Your task to perform on an android device: delete location history Image 0: 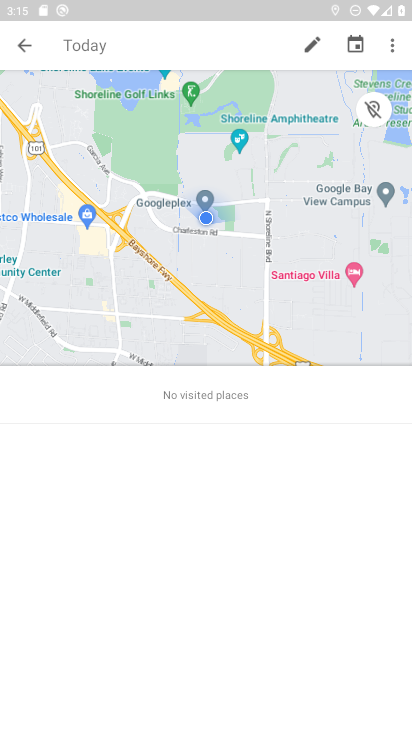
Step 0: click (388, 43)
Your task to perform on an android device: delete location history Image 1: 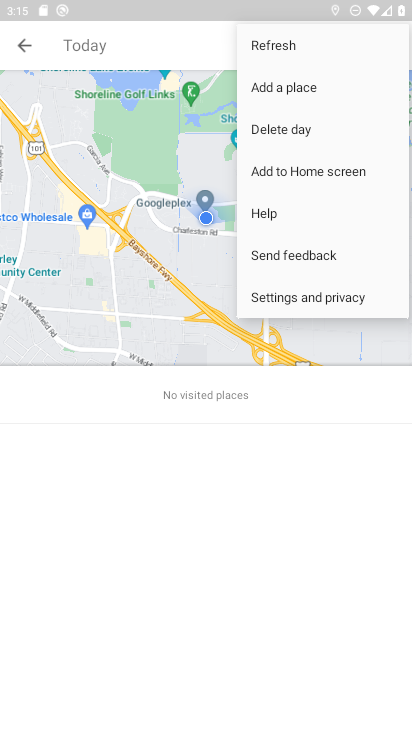
Step 1: click (289, 300)
Your task to perform on an android device: delete location history Image 2: 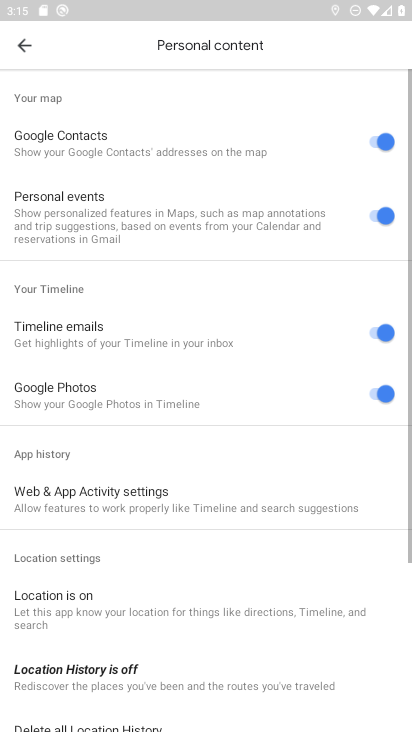
Step 2: drag from (207, 649) to (191, 197)
Your task to perform on an android device: delete location history Image 3: 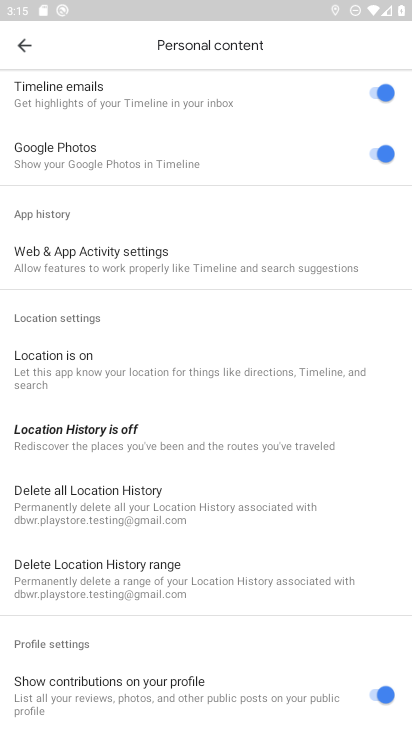
Step 3: click (134, 502)
Your task to perform on an android device: delete location history Image 4: 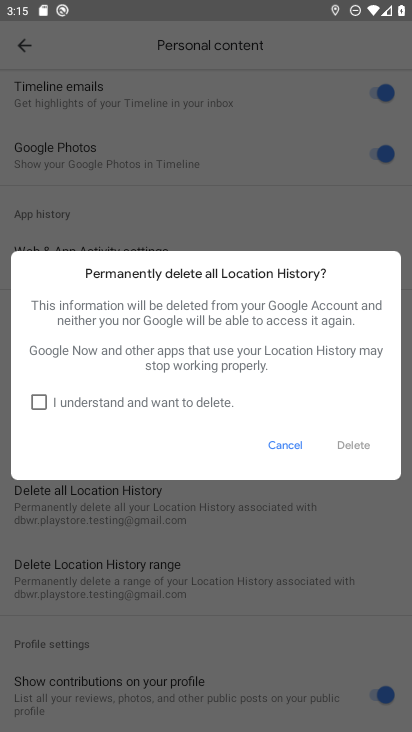
Step 4: click (164, 401)
Your task to perform on an android device: delete location history Image 5: 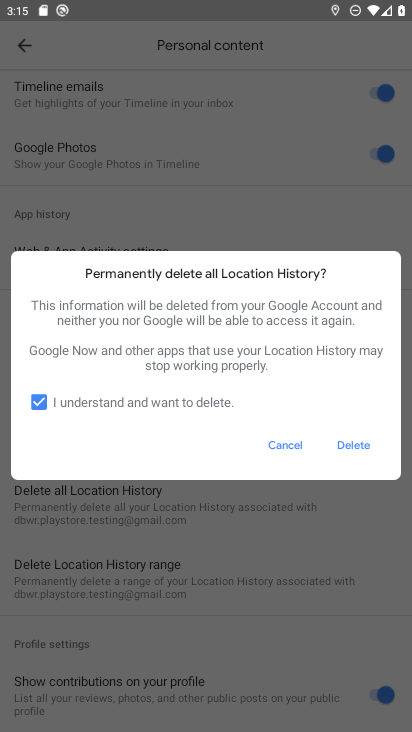
Step 5: click (347, 453)
Your task to perform on an android device: delete location history Image 6: 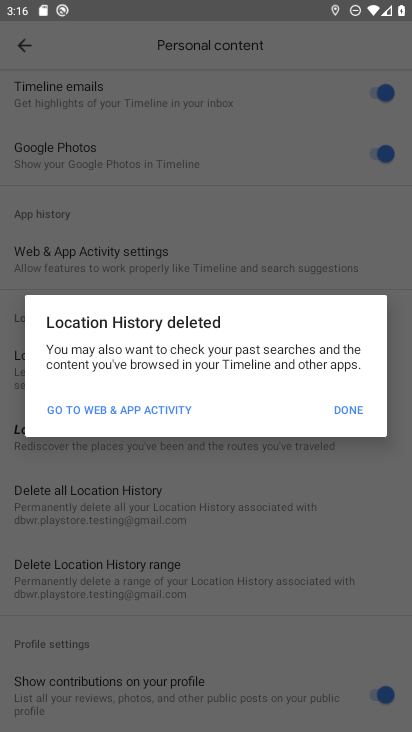
Step 6: click (333, 415)
Your task to perform on an android device: delete location history Image 7: 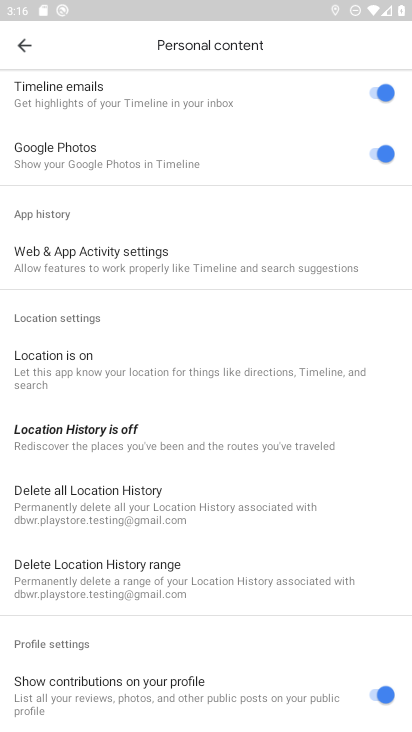
Step 7: task complete